Your task to perform on an android device: Search for vegetarian restaurants on Maps Image 0: 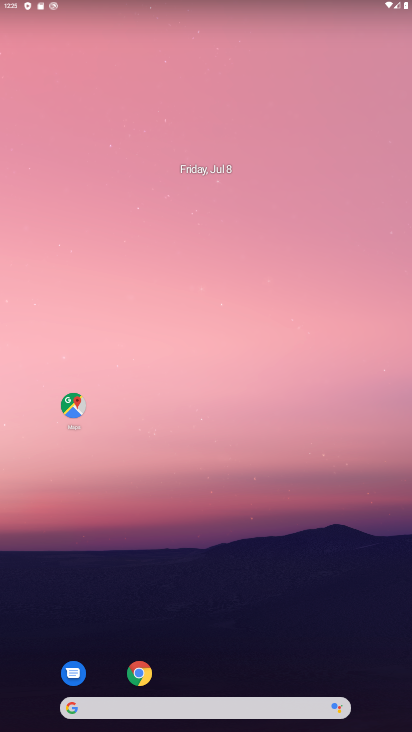
Step 0: drag from (215, 681) to (282, 192)
Your task to perform on an android device: Search for vegetarian restaurants on Maps Image 1: 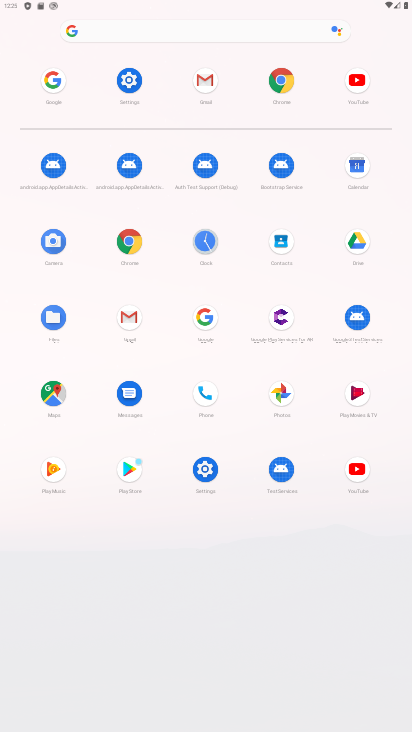
Step 1: click (49, 394)
Your task to perform on an android device: Search for vegetarian restaurants on Maps Image 2: 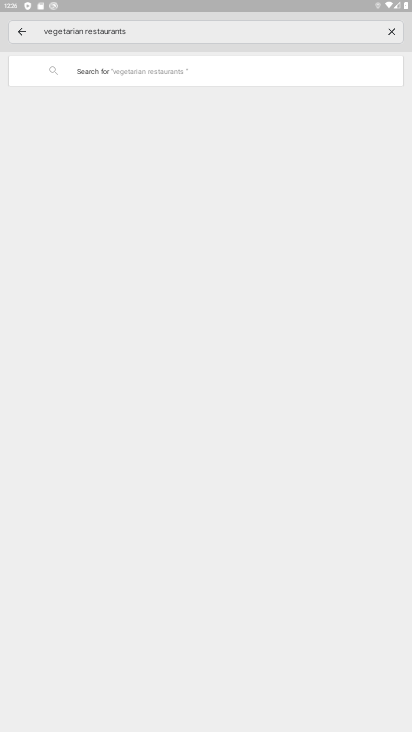
Step 2: click (143, 75)
Your task to perform on an android device: Search for vegetarian restaurants on Maps Image 3: 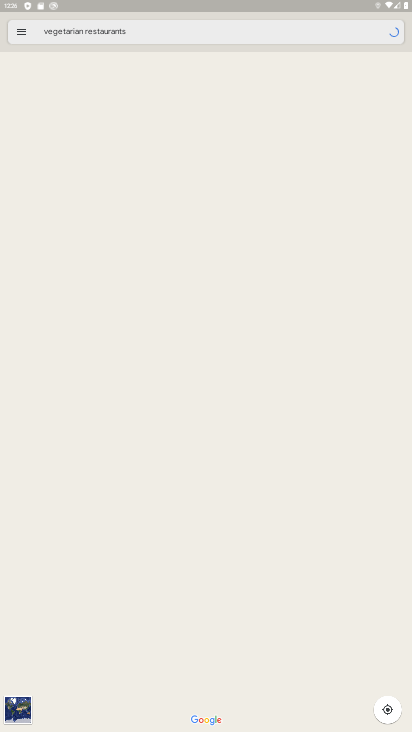
Step 3: task complete